Your task to perform on an android device: Open Google Maps and go to "Timeline" Image 0: 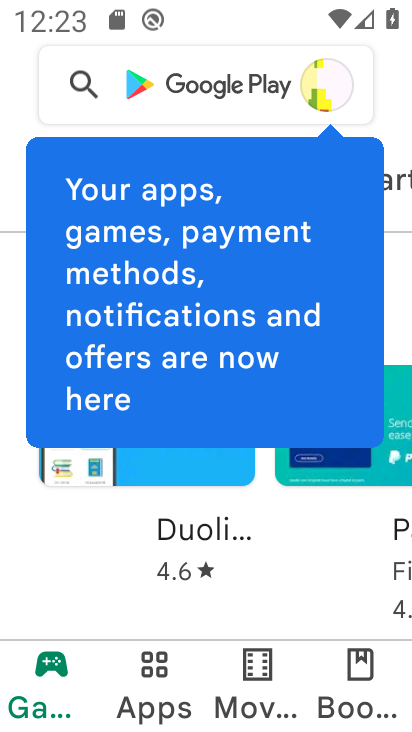
Step 0: press home button
Your task to perform on an android device: Open Google Maps and go to "Timeline" Image 1: 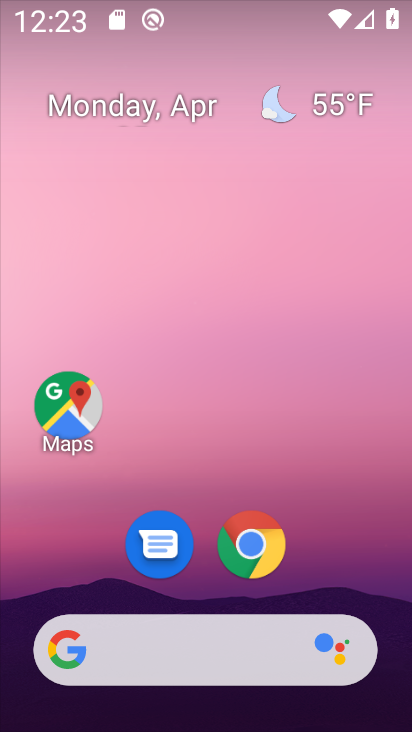
Step 1: click (85, 420)
Your task to perform on an android device: Open Google Maps and go to "Timeline" Image 2: 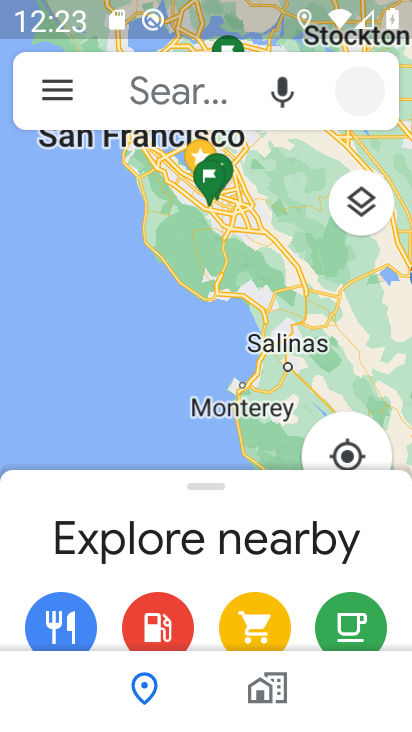
Step 2: click (49, 97)
Your task to perform on an android device: Open Google Maps and go to "Timeline" Image 3: 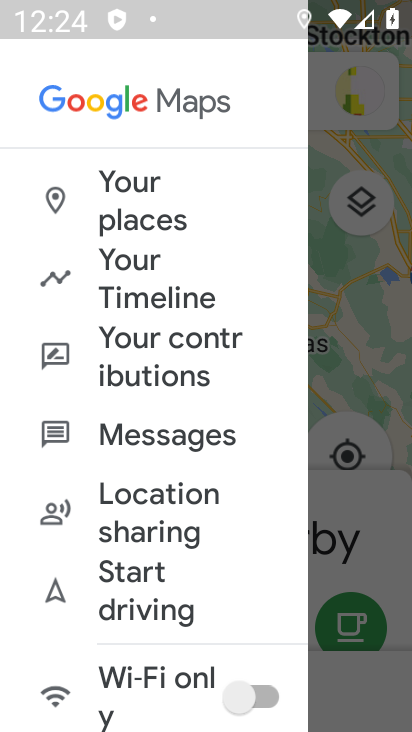
Step 3: click (125, 287)
Your task to perform on an android device: Open Google Maps and go to "Timeline" Image 4: 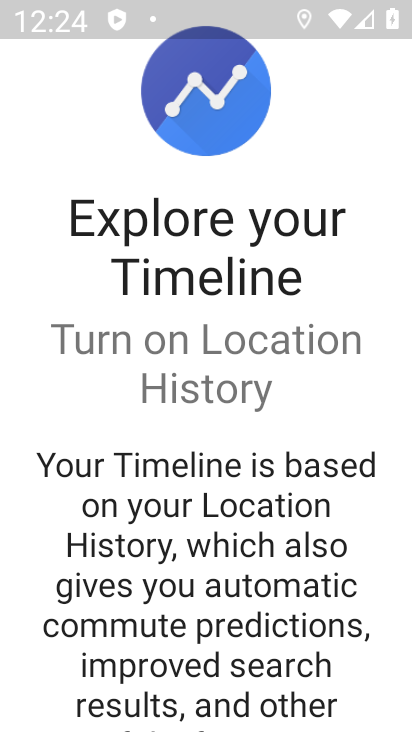
Step 4: task complete